Your task to perform on an android device: turn off javascript in the chrome app Image 0: 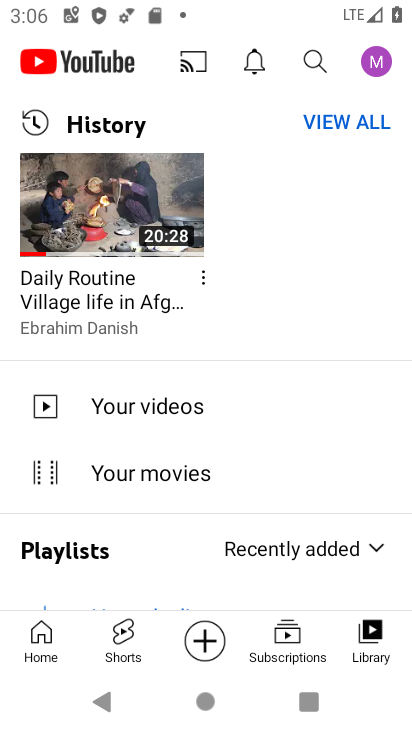
Step 0: press home button
Your task to perform on an android device: turn off javascript in the chrome app Image 1: 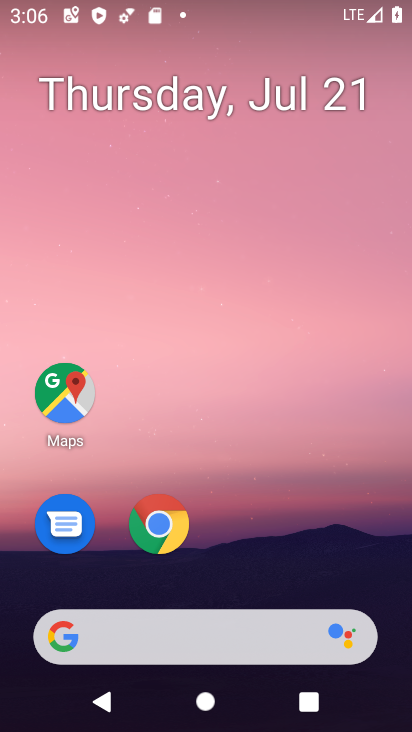
Step 1: drag from (259, 543) to (272, 101)
Your task to perform on an android device: turn off javascript in the chrome app Image 2: 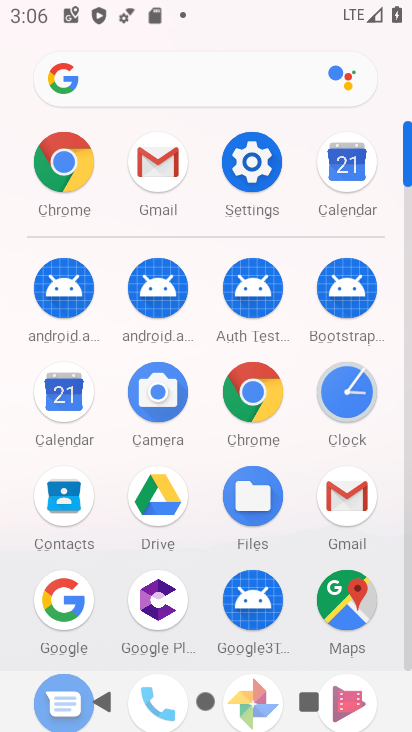
Step 2: click (70, 169)
Your task to perform on an android device: turn off javascript in the chrome app Image 3: 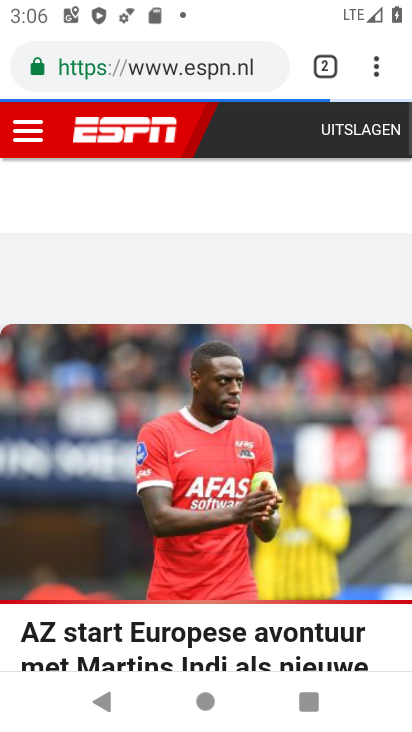
Step 3: click (379, 78)
Your task to perform on an android device: turn off javascript in the chrome app Image 4: 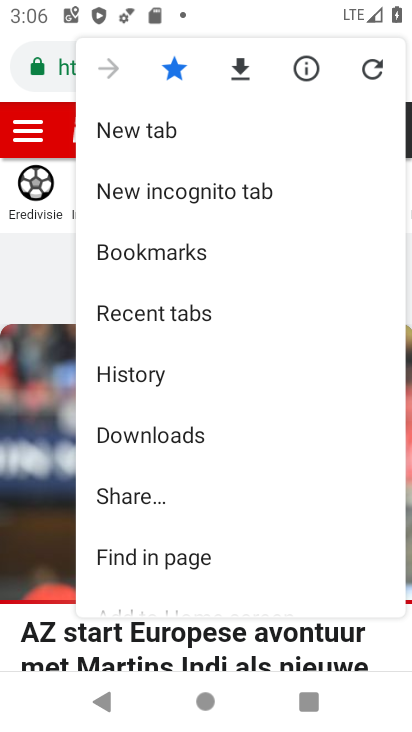
Step 4: drag from (234, 530) to (229, 163)
Your task to perform on an android device: turn off javascript in the chrome app Image 5: 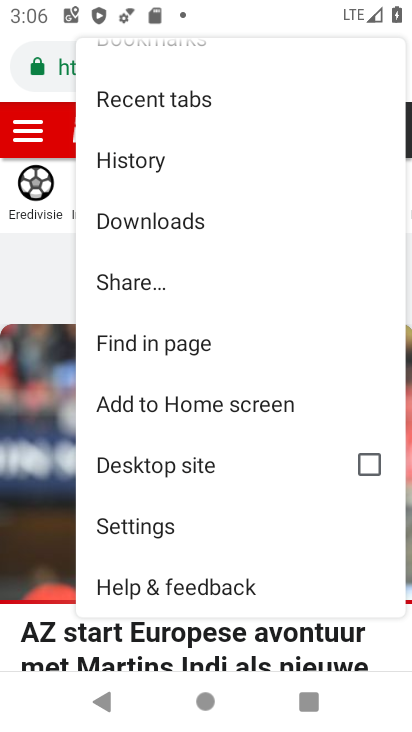
Step 5: click (177, 527)
Your task to perform on an android device: turn off javascript in the chrome app Image 6: 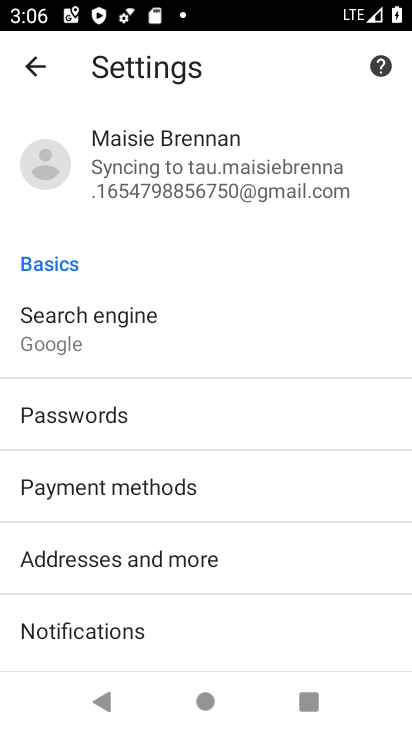
Step 6: drag from (266, 551) to (245, 203)
Your task to perform on an android device: turn off javascript in the chrome app Image 7: 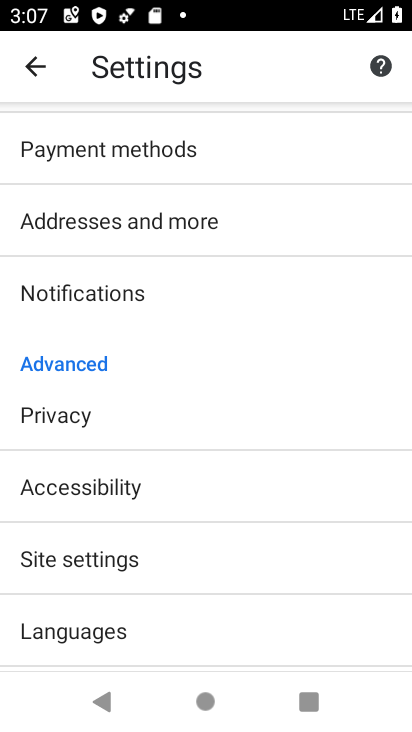
Step 7: click (125, 554)
Your task to perform on an android device: turn off javascript in the chrome app Image 8: 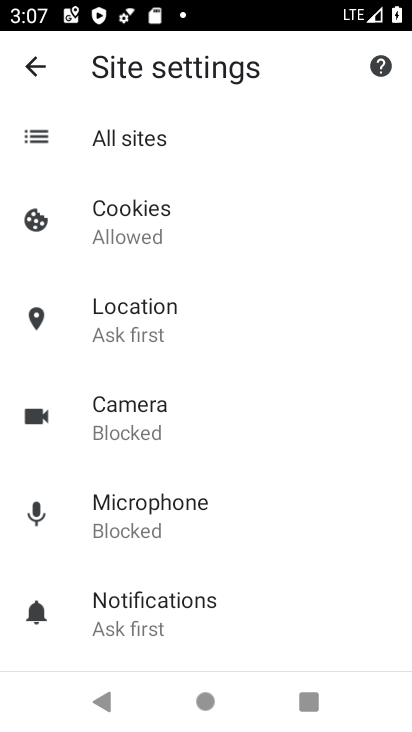
Step 8: drag from (241, 534) to (250, 239)
Your task to perform on an android device: turn off javascript in the chrome app Image 9: 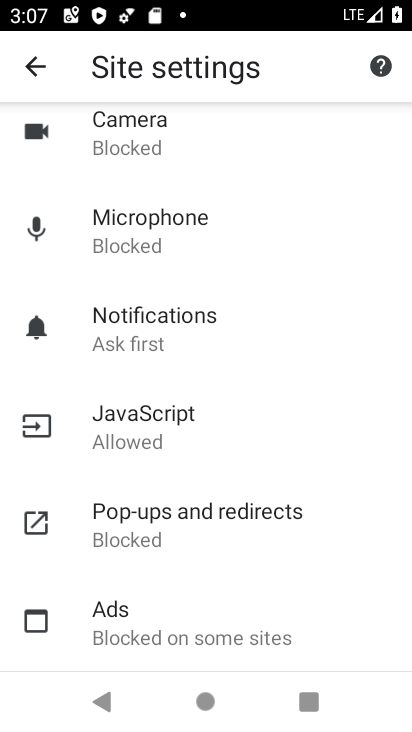
Step 9: click (200, 430)
Your task to perform on an android device: turn off javascript in the chrome app Image 10: 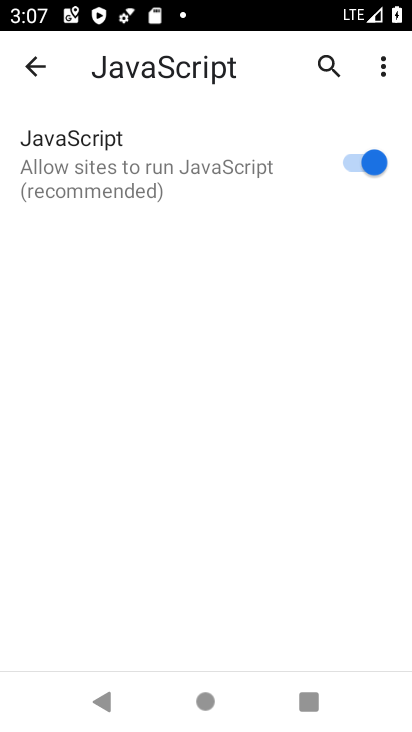
Step 10: click (356, 162)
Your task to perform on an android device: turn off javascript in the chrome app Image 11: 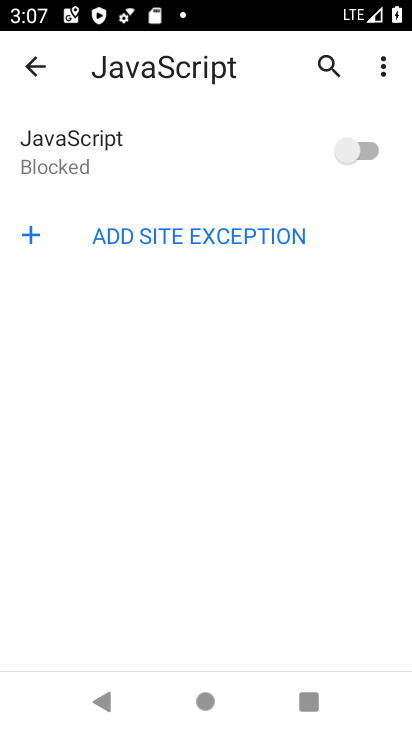
Step 11: task complete